Your task to perform on an android device: turn off data saver in the chrome app Image 0: 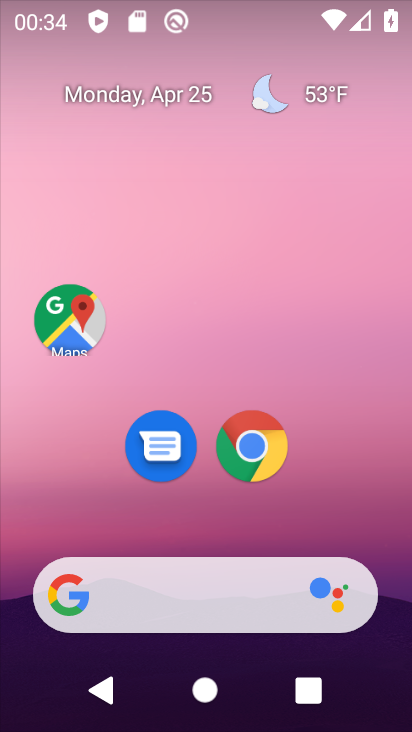
Step 0: click (263, 458)
Your task to perform on an android device: turn off data saver in the chrome app Image 1: 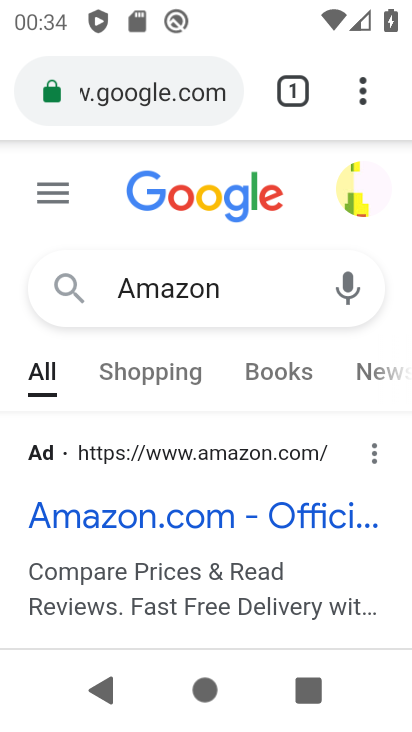
Step 1: click (355, 94)
Your task to perform on an android device: turn off data saver in the chrome app Image 2: 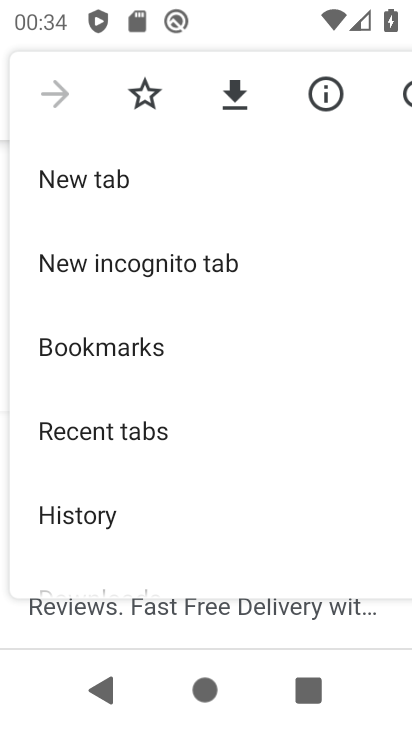
Step 2: drag from (125, 530) to (207, 126)
Your task to perform on an android device: turn off data saver in the chrome app Image 3: 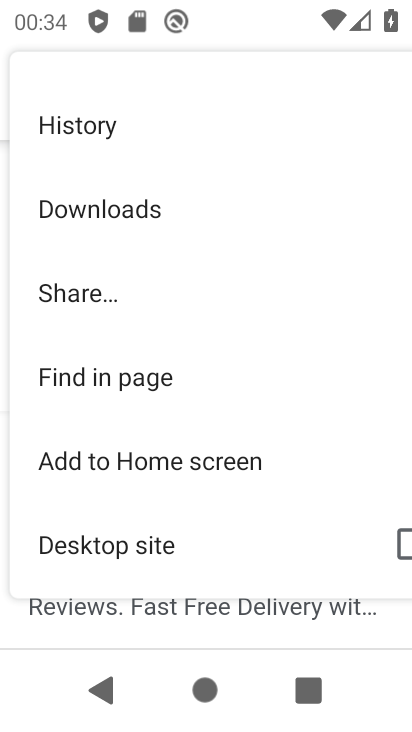
Step 3: drag from (110, 481) to (224, 90)
Your task to perform on an android device: turn off data saver in the chrome app Image 4: 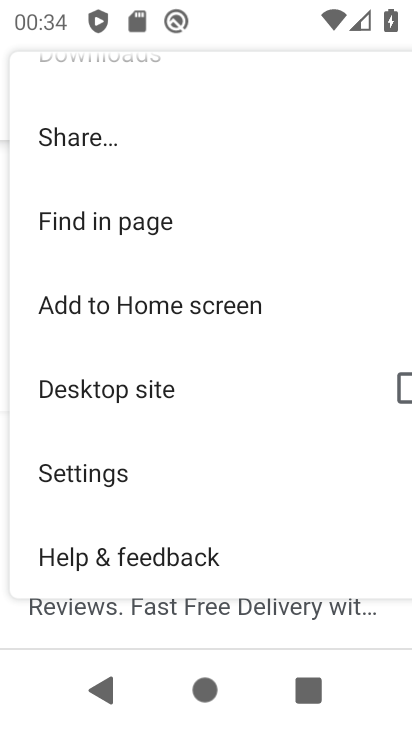
Step 4: click (120, 480)
Your task to perform on an android device: turn off data saver in the chrome app Image 5: 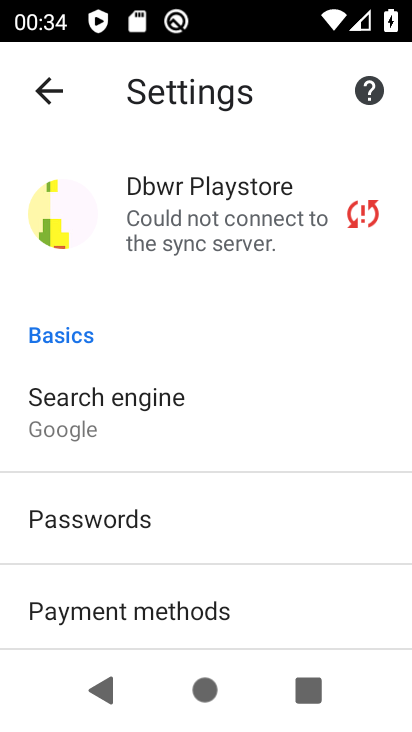
Step 5: drag from (180, 533) to (235, 107)
Your task to perform on an android device: turn off data saver in the chrome app Image 6: 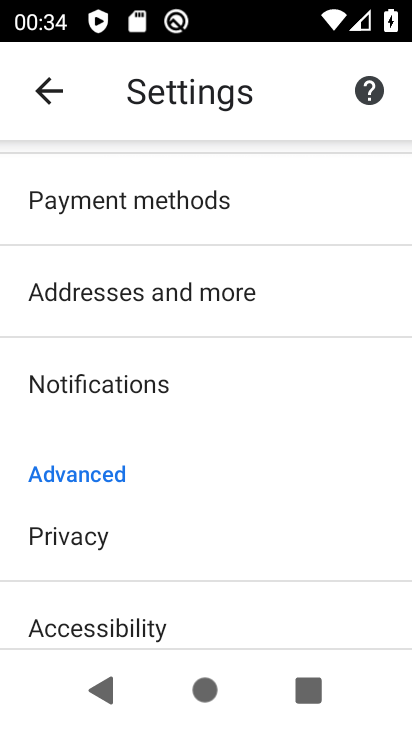
Step 6: drag from (126, 489) to (197, 137)
Your task to perform on an android device: turn off data saver in the chrome app Image 7: 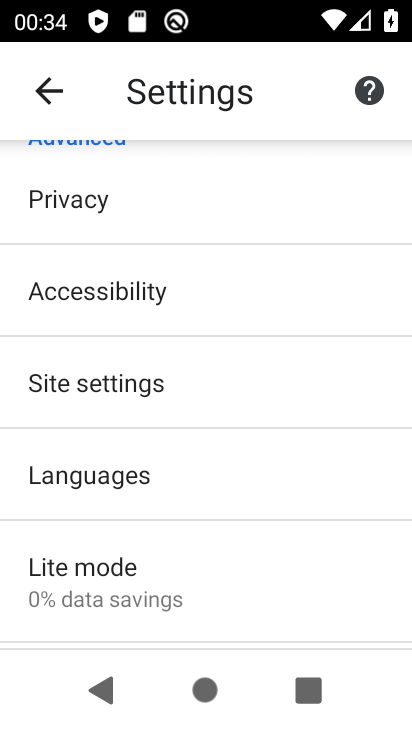
Step 7: click (126, 587)
Your task to perform on an android device: turn off data saver in the chrome app Image 8: 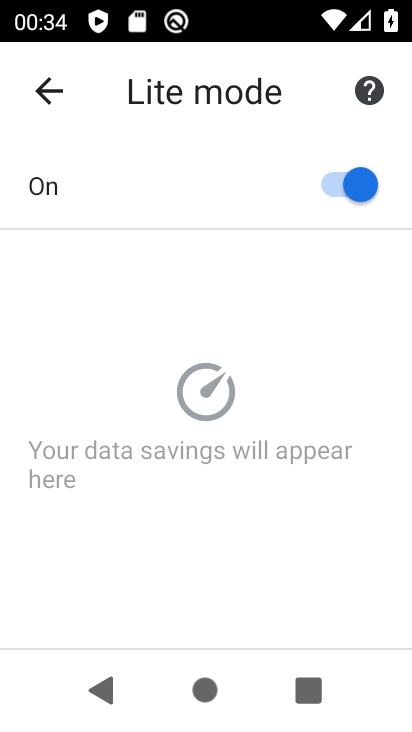
Step 8: click (320, 170)
Your task to perform on an android device: turn off data saver in the chrome app Image 9: 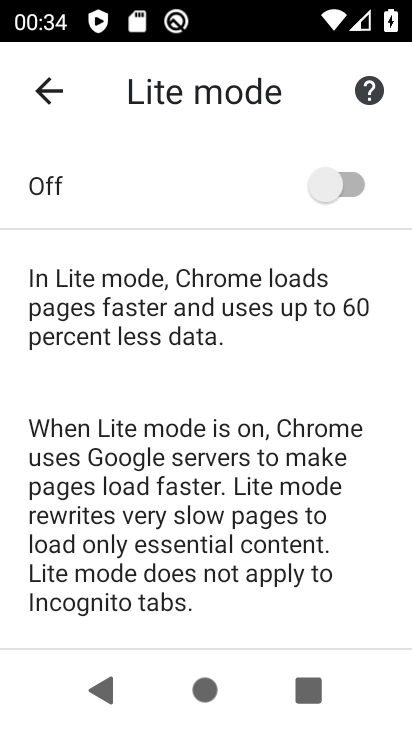
Step 9: task complete